Your task to perform on an android device: Search for "bose soundsport free" on newegg.com, select the first entry, and add it to the cart. Image 0: 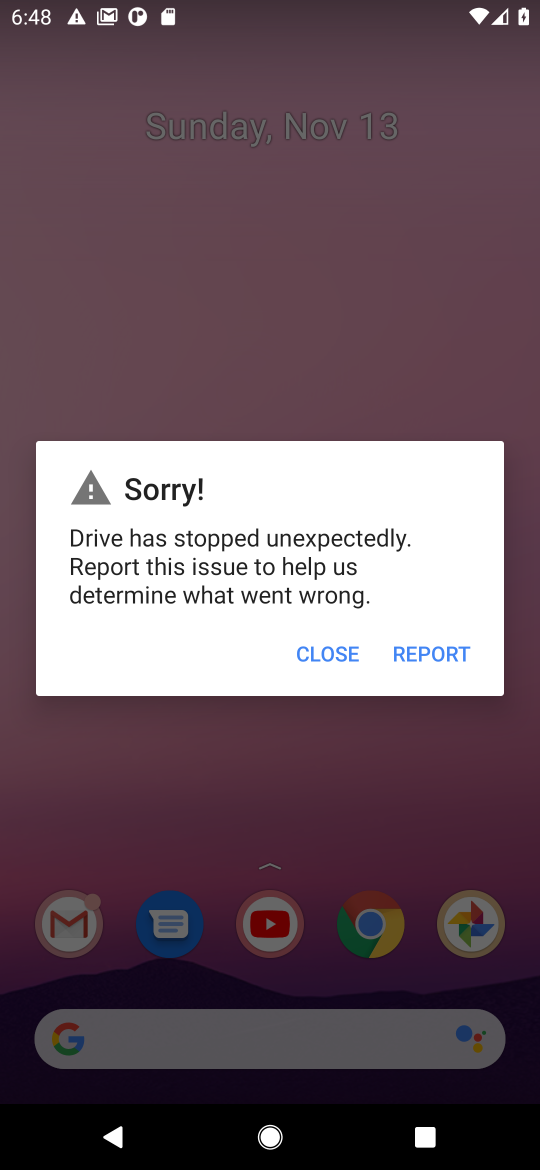
Step 0: press home button
Your task to perform on an android device: Search for "bose soundsport free" on newegg.com, select the first entry, and add it to the cart. Image 1: 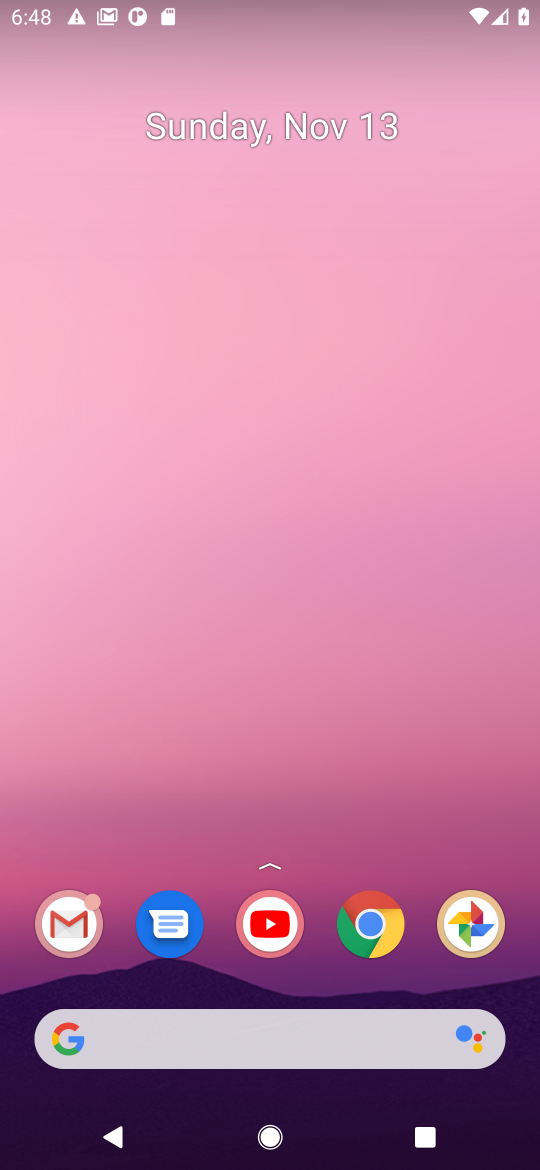
Step 1: click (381, 924)
Your task to perform on an android device: Search for "bose soundsport free" on newegg.com, select the first entry, and add it to the cart. Image 2: 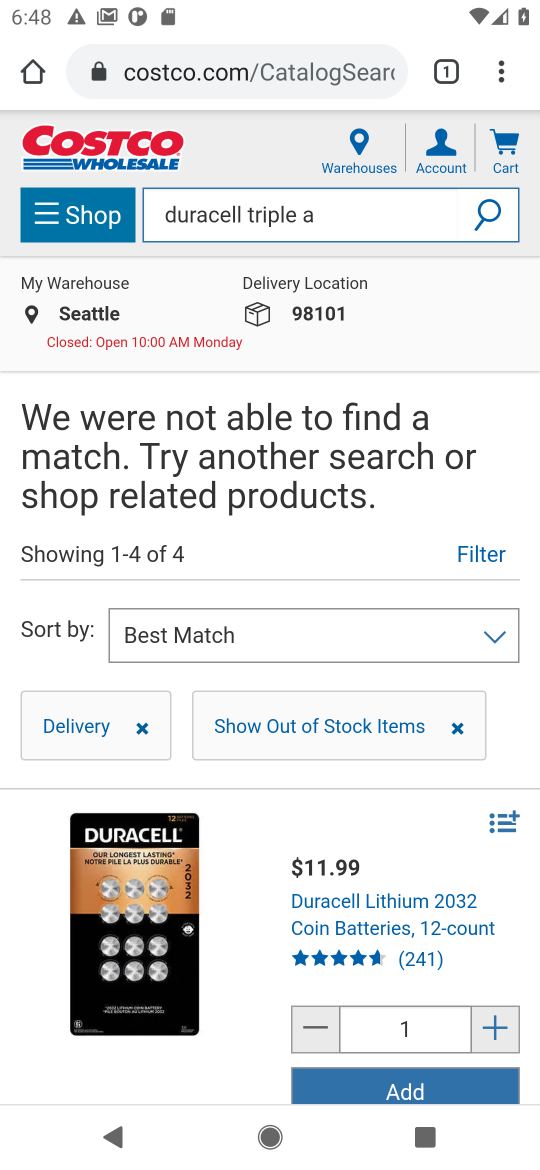
Step 2: click (180, 80)
Your task to perform on an android device: Search for "bose soundsport free" on newegg.com, select the first entry, and add it to the cart. Image 3: 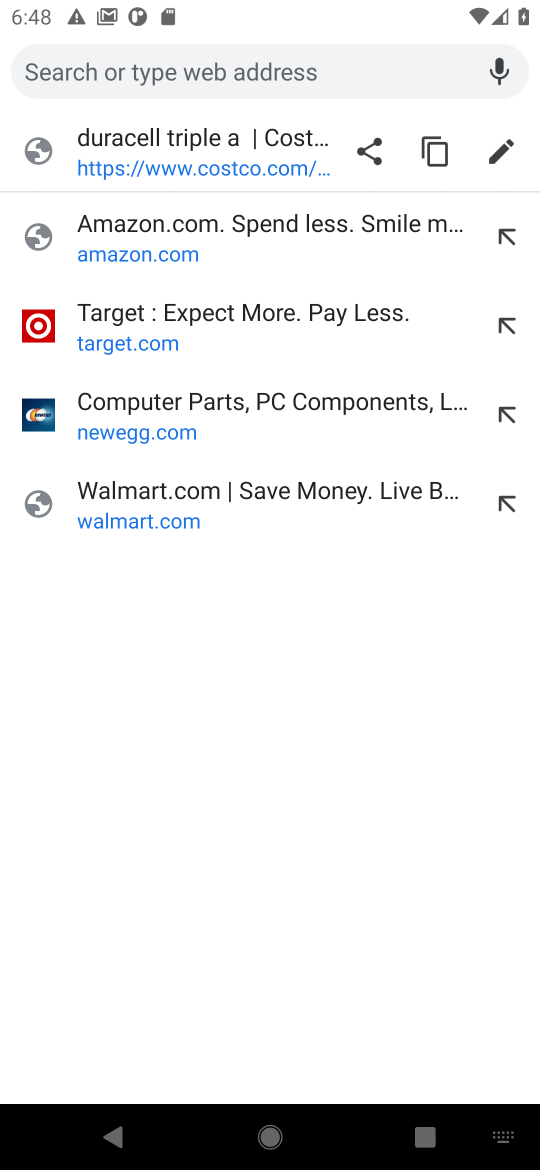
Step 3: click (127, 425)
Your task to perform on an android device: Search for "bose soundsport free" on newegg.com, select the first entry, and add it to the cart. Image 4: 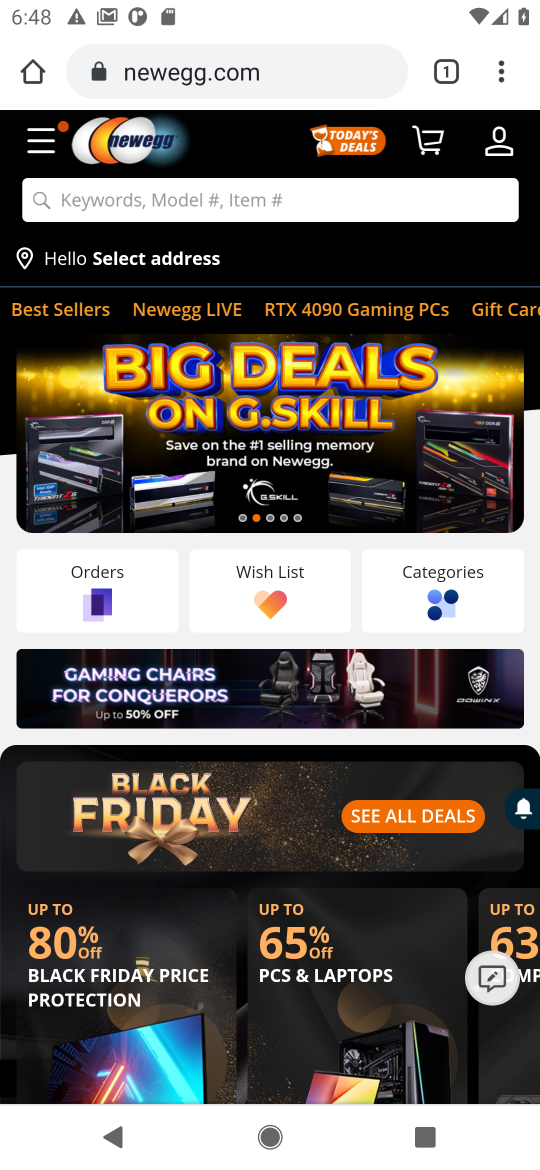
Step 4: click (152, 196)
Your task to perform on an android device: Search for "bose soundsport free" on newegg.com, select the first entry, and add it to the cart. Image 5: 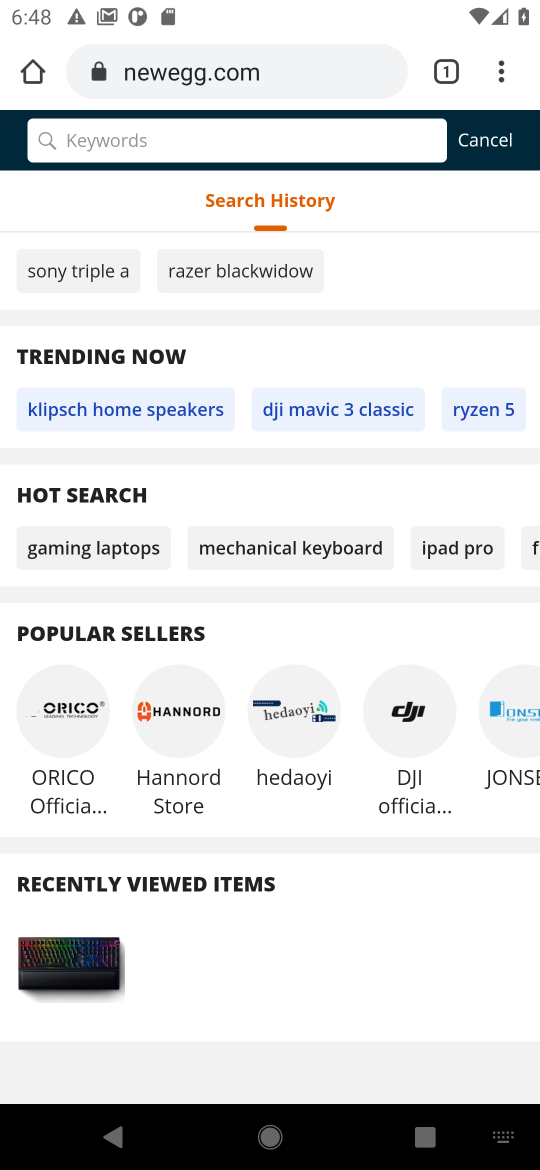
Step 5: type "bose soundsport free"
Your task to perform on an android device: Search for "bose soundsport free" on newegg.com, select the first entry, and add it to the cart. Image 6: 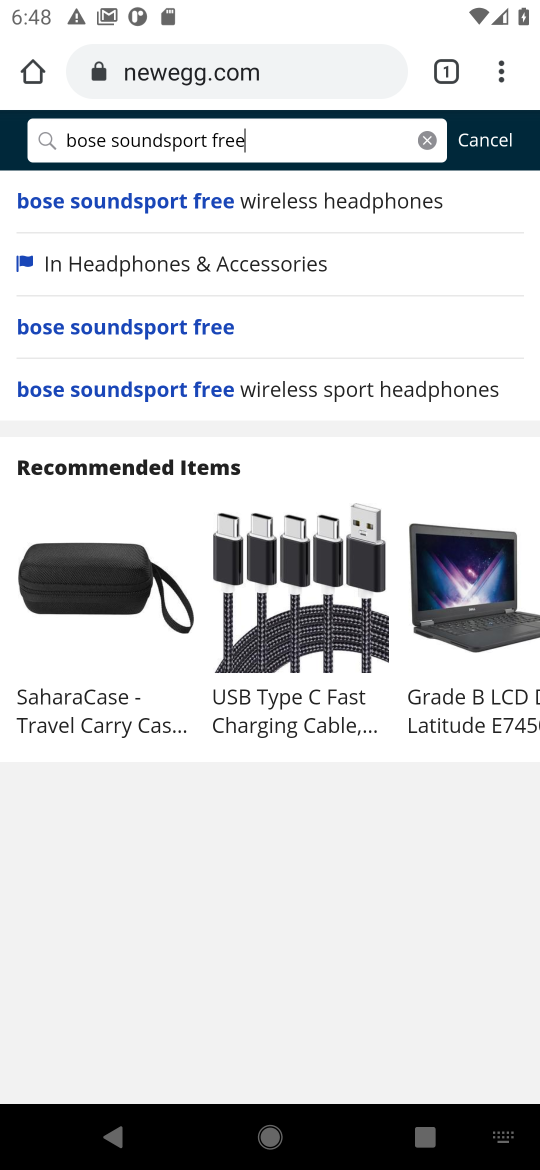
Step 6: click (159, 324)
Your task to perform on an android device: Search for "bose soundsport free" on newegg.com, select the first entry, and add it to the cart. Image 7: 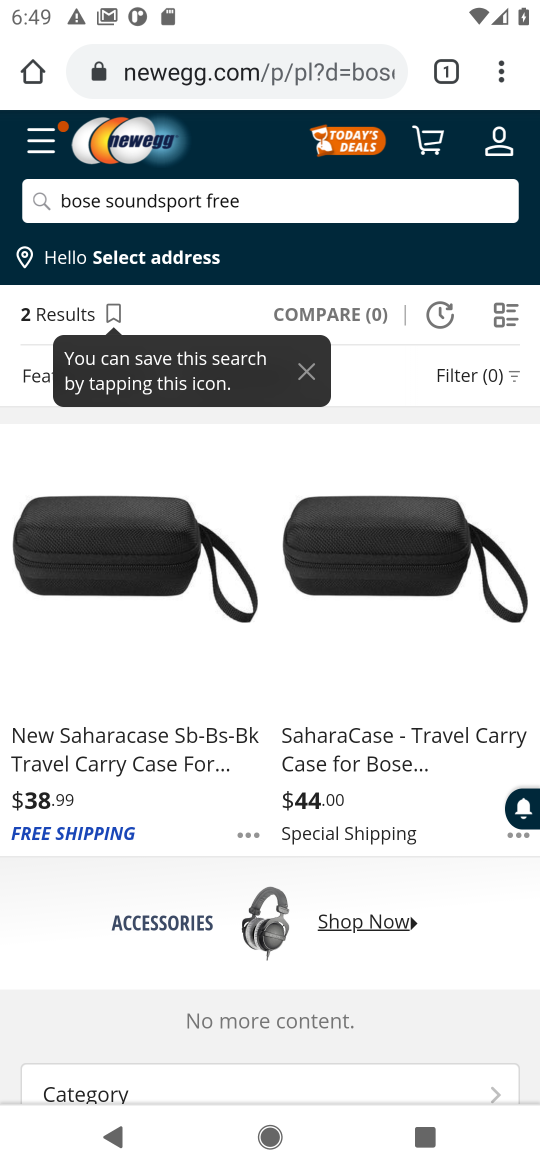
Step 7: task complete